Your task to perform on an android device: delete location history Image 0: 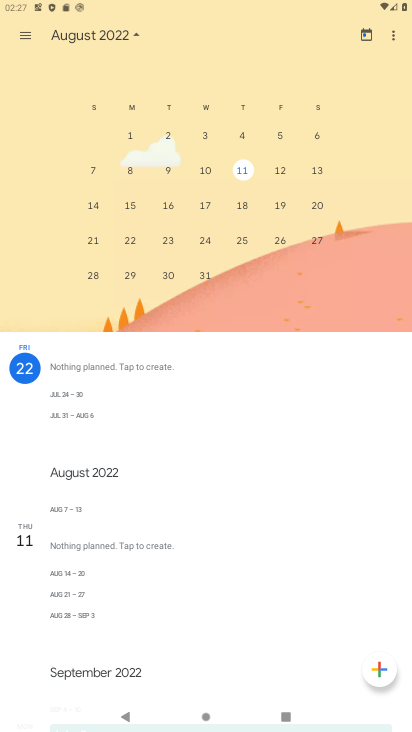
Step 0: press home button
Your task to perform on an android device: delete location history Image 1: 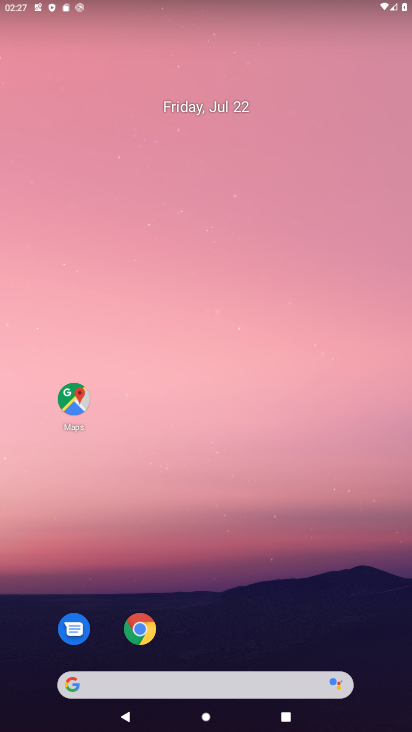
Step 1: drag from (66, 501) to (257, 66)
Your task to perform on an android device: delete location history Image 2: 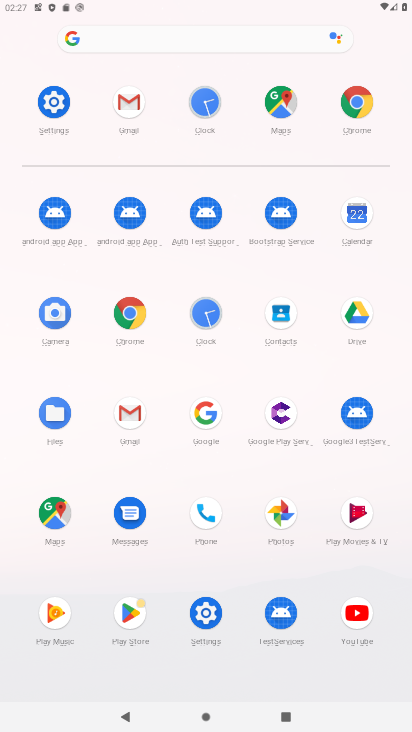
Step 2: click (57, 107)
Your task to perform on an android device: delete location history Image 3: 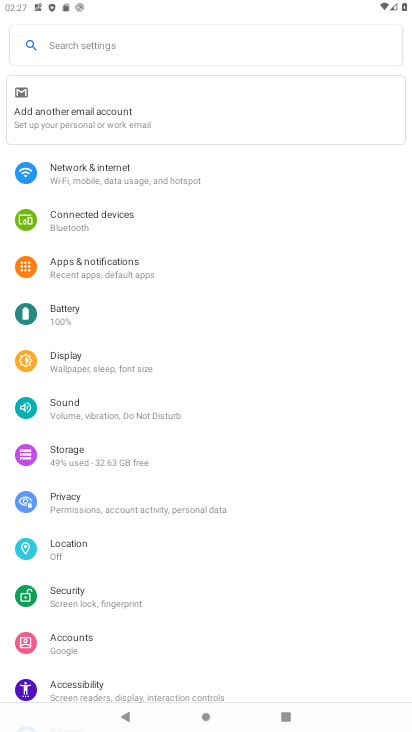
Step 3: click (63, 542)
Your task to perform on an android device: delete location history Image 4: 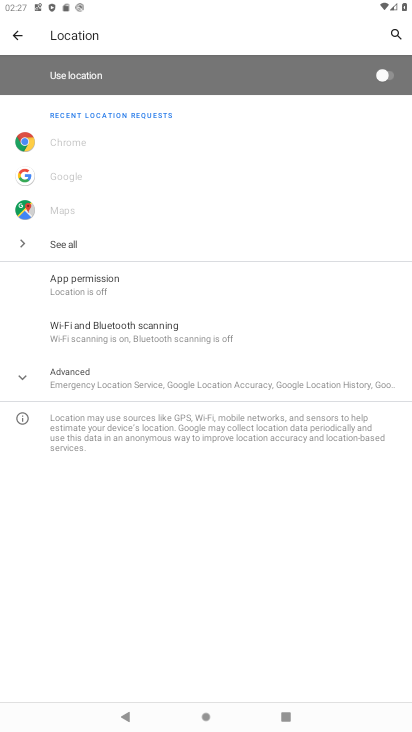
Step 4: click (159, 383)
Your task to perform on an android device: delete location history Image 5: 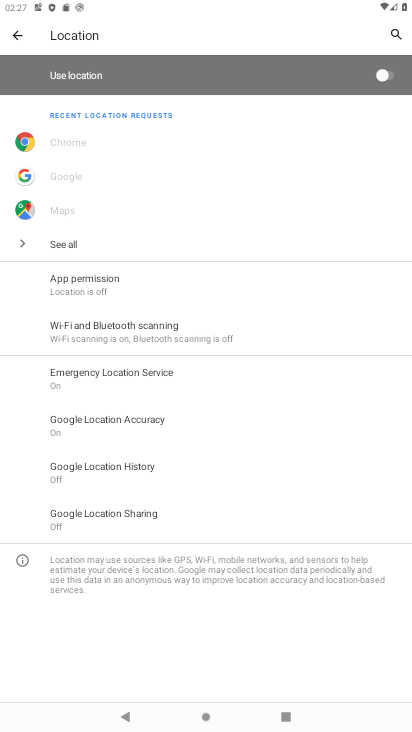
Step 5: click (134, 460)
Your task to perform on an android device: delete location history Image 6: 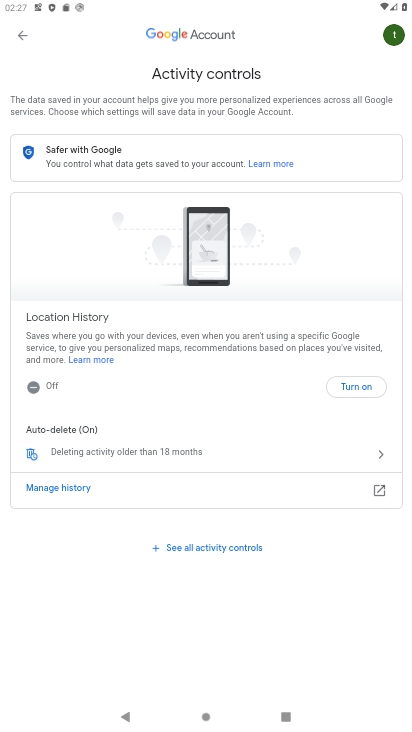
Step 6: click (373, 448)
Your task to perform on an android device: delete location history Image 7: 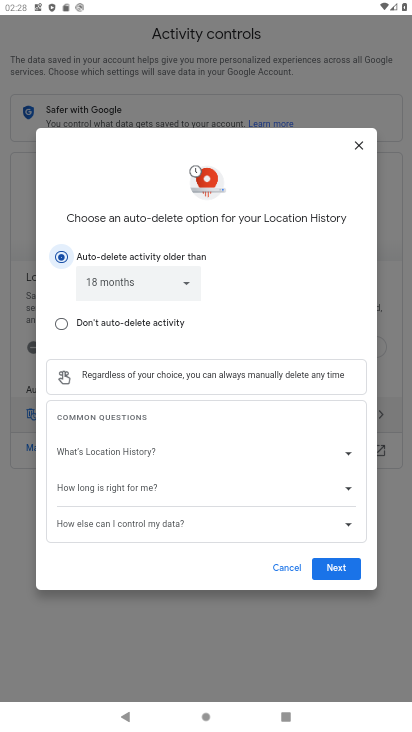
Step 7: click (332, 565)
Your task to perform on an android device: delete location history Image 8: 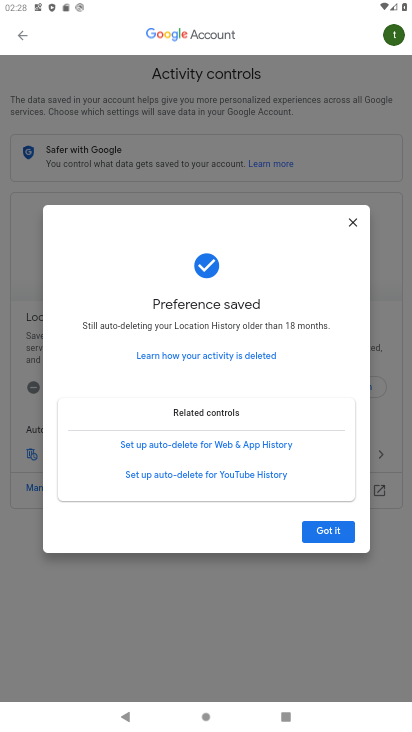
Step 8: click (328, 521)
Your task to perform on an android device: delete location history Image 9: 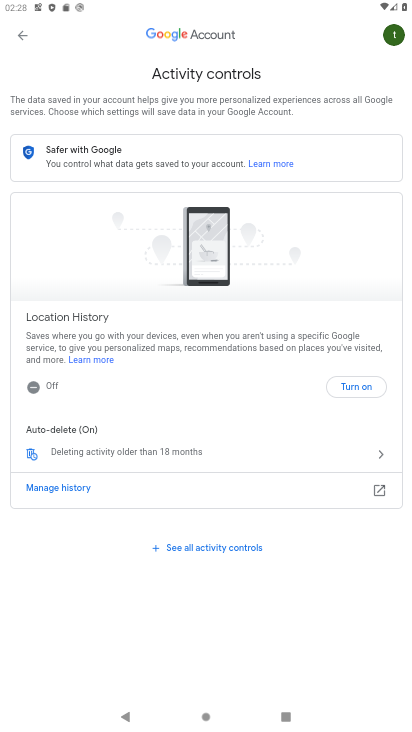
Step 9: task complete